Your task to perform on an android device: Show me the alarms in the clock app Image 0: 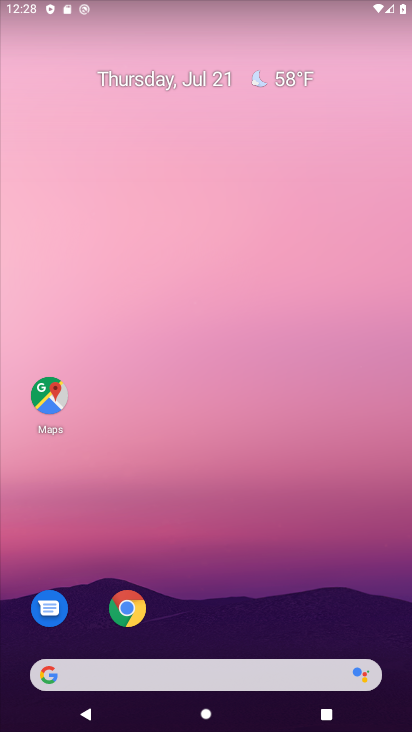
Step 0: drag from (228, 631) to (261, 175)
Your task to perform on an android device: Show me the alarms in the clock app Image 1: 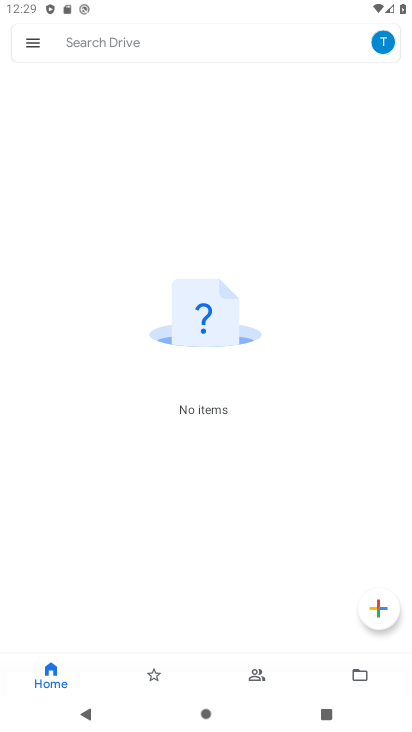
Step 1: press home button
Your task to perform on an android device: Show me the alarms in the clock app Image 2: 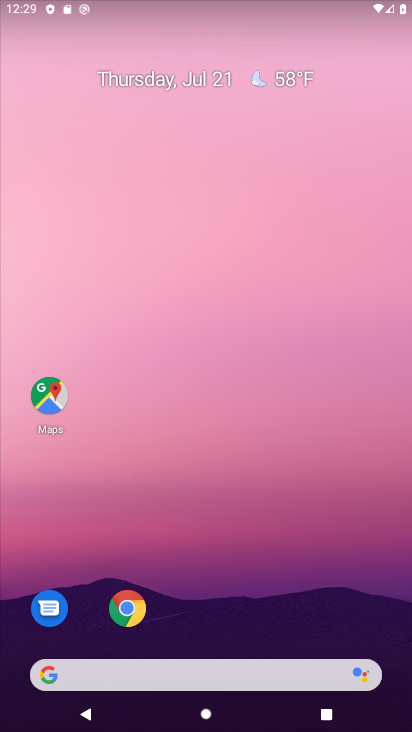
Step 2: drag from (244, 627) to (247, 91)
Your task to perform on an android device: Show me the alarms in the clock app Image 3: 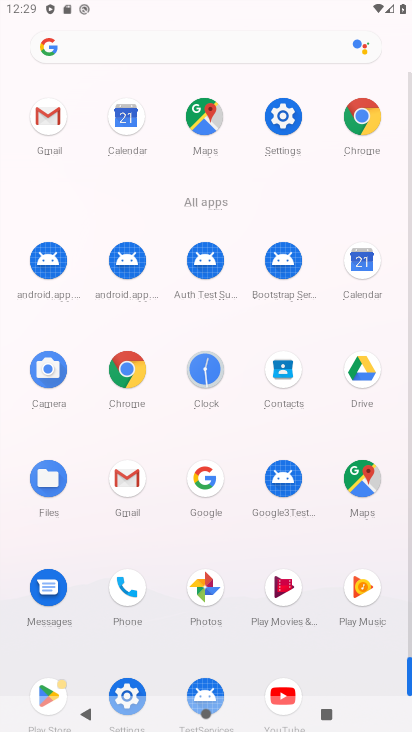
Step 3: click (208, 365)
Your task to perform on an android device: Show me the alarms in the clock app Image 4: 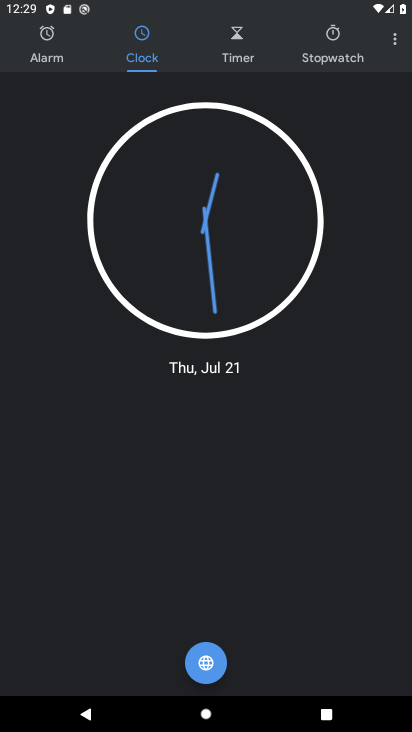
Step 4: click (35, 39)
Your task to perform on an android device: Show me the alarms in the clock app Image 5: 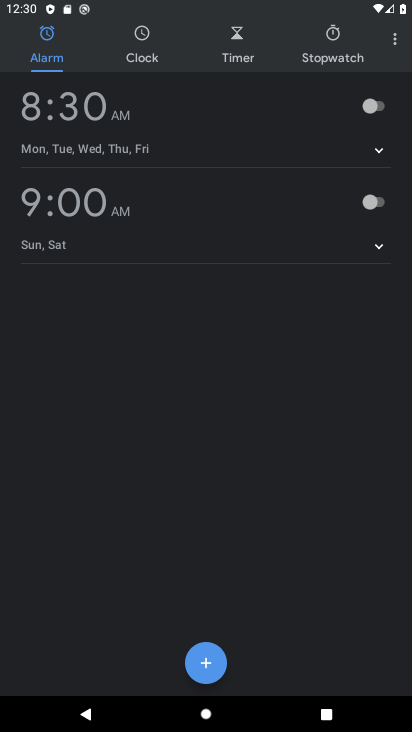
Step 5: click (361, 103)
Your task to perform on an android device: Show me the alarms in the clock app Image 6: 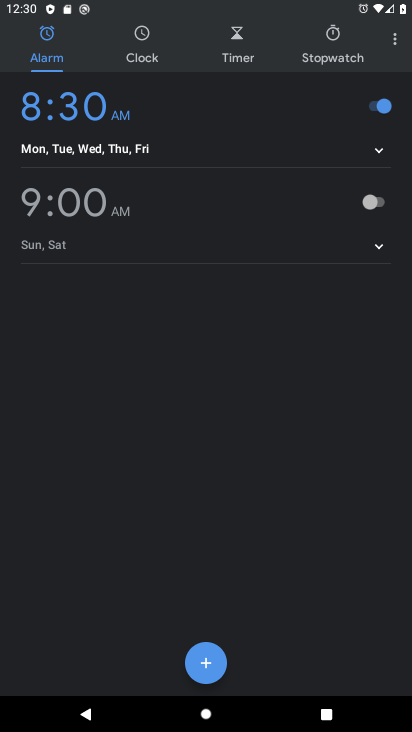
Step 6: task complete